Your task to perform on an android device: Look up the best rated wireless earbuds on Ali Express Image 0: 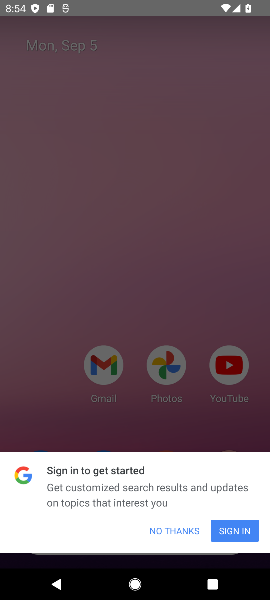
Step 0: press home button
Your task to perform on an android device: Look up the best rated wireless earbuds on Ali Express Image 1: 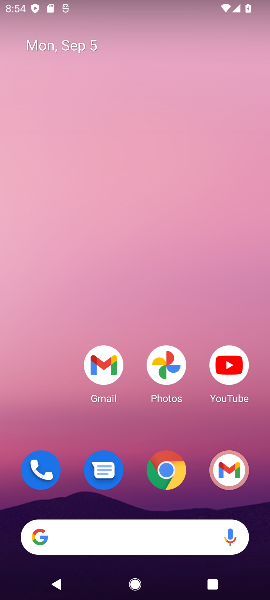
Step 1: click (129, 534)
Your task to perform on an android device: Look up the best rated wireless earbuds on Ali Express Image 2: 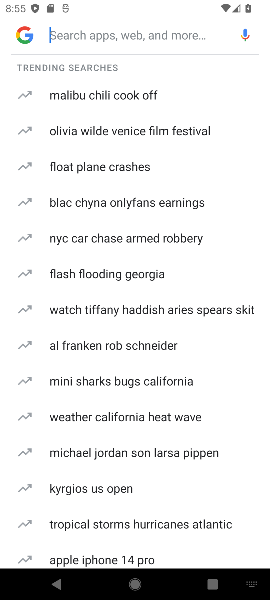
Step 2: type "ali express"
Your task to perform on an android device: Look up the best rated wireless earbuds on Ali Express Image 3: 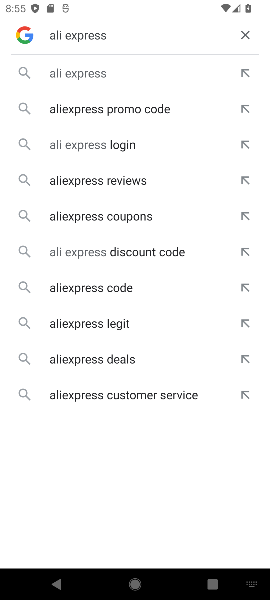
Step 3: click (93, 71)
Your task to perform on an android device: Look up the best rated wireless earbuds on Ali Express Image 4: 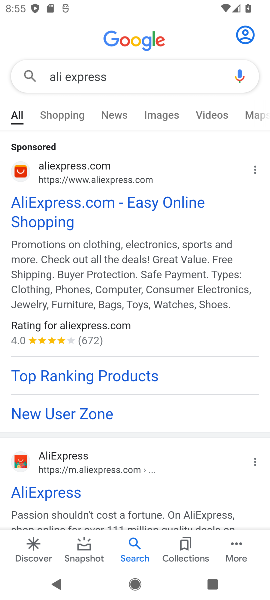
Step 4: click (63, 199)
Your task to perform on an android device: Look up the best rated wireless earbuds on Ali Express Image 5: 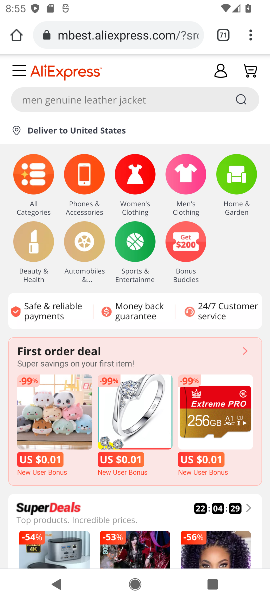
Step 5: click (97, 96)
Your task to perform on an android device: Look up the best rated wireless earbuds on Ali Express Image 6: 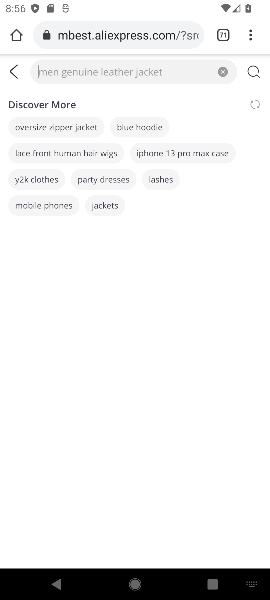
Step 6: type "best rated wireless earbuds"
Your task to perform on an android device: Look up the best rated wireless earbuds on Ali Express Image 7: 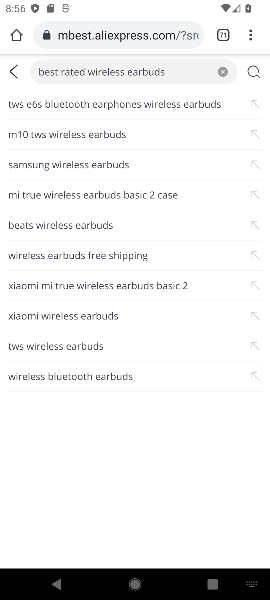
Step 7: click (252, 65)
Your task to perform on an android device: Look up the best rated wireless earbuds on Ali Express Image 8: 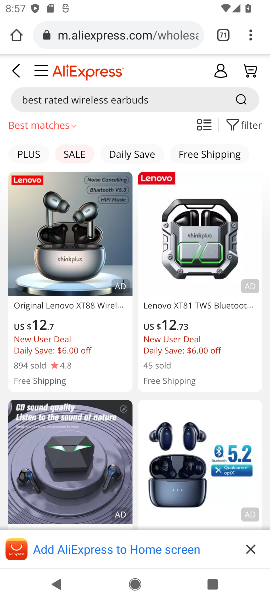
Step 8: task complete